Your task to perform on an android device: Open battery settings Image 0: 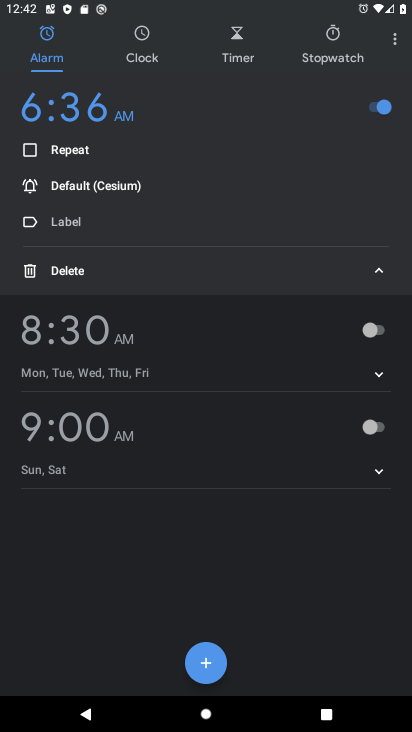
Step 0: press home button
Your task to perform on an android device: Open battery settings Image 1: 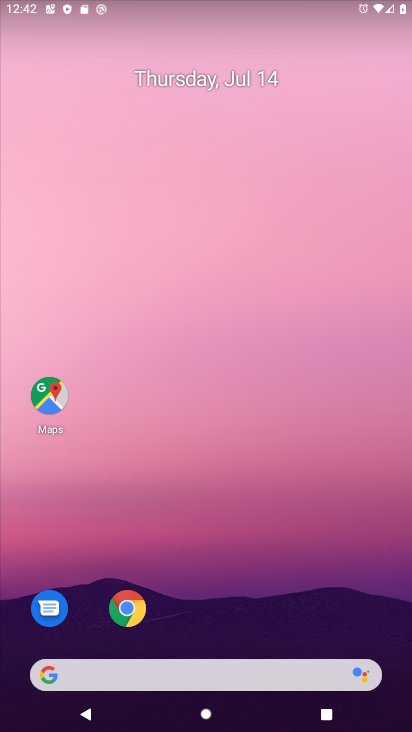
Step 1: drag from (205, 679) to (281, 202)
Your task to perform on an android device: Open battery settings Image 2: 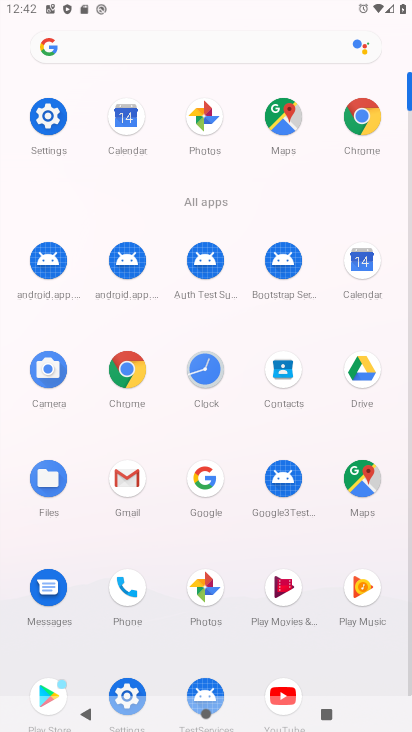
Step 2: click (48, 117)
Your task to perform on an android device: Open battery settings Image 3: 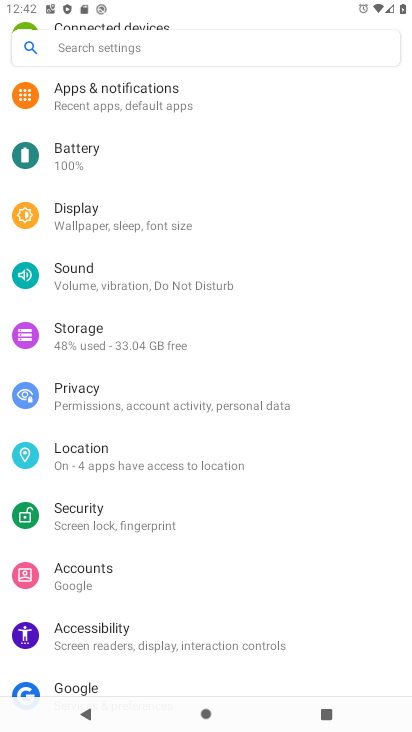
Step 3: click (69, 160)
Your task to perform on an android device: Open battery settings Image 4: 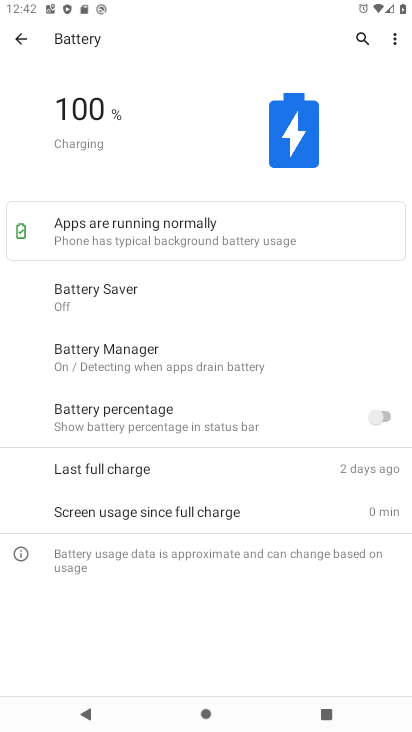
Step 4: task complete